Your task to perform on an android device: Go to accessibility settings Image 0: 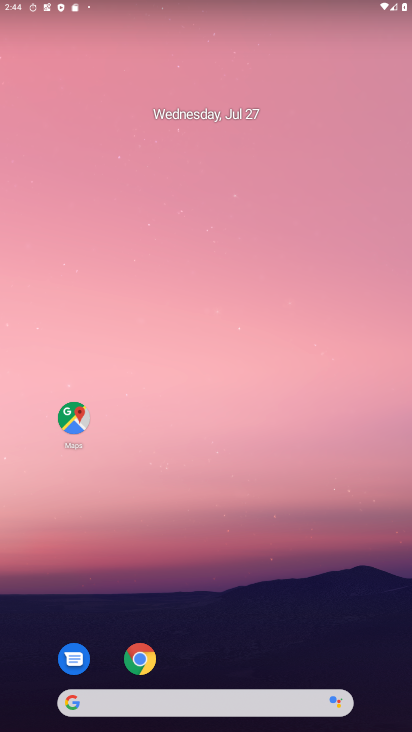
Step 0: drag from (221, 703) to (220, 178)
Your task to perform on an android device: Go to accessibility settings Image 1: 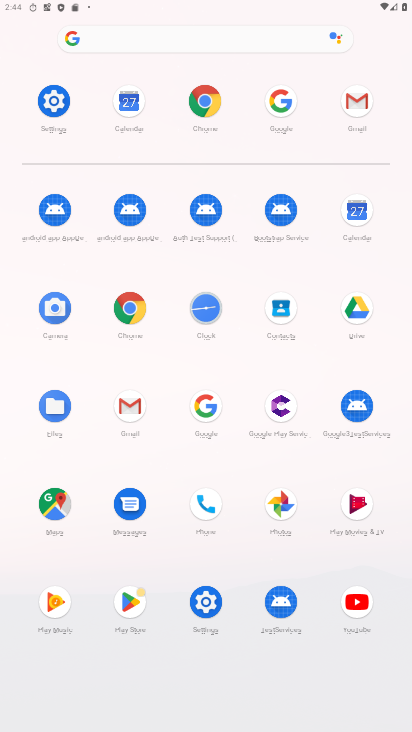
Step 1: click (61, 99)
Your task to perform on an android device: Go to accessibility settings Image 2: 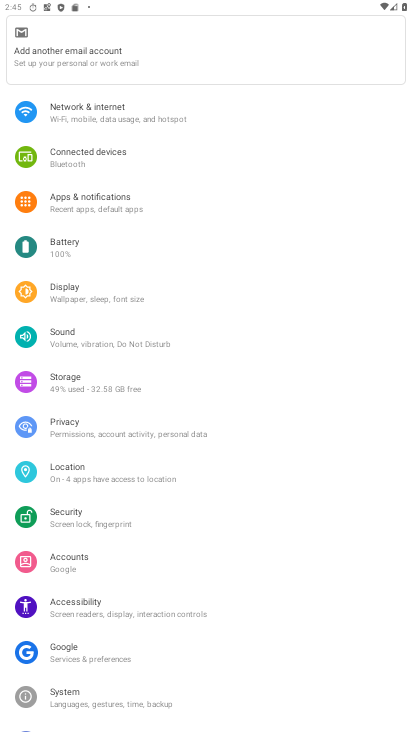
Step 2: click (77, 610)
Your task to perform on an android device: Go to accessibility settings Image 3: 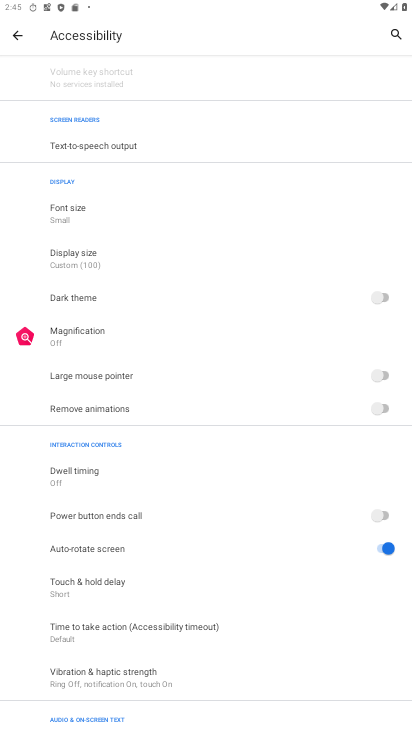
Step 3: task complete